Your task to perform on an android device: toggle airplane mode Image 0: 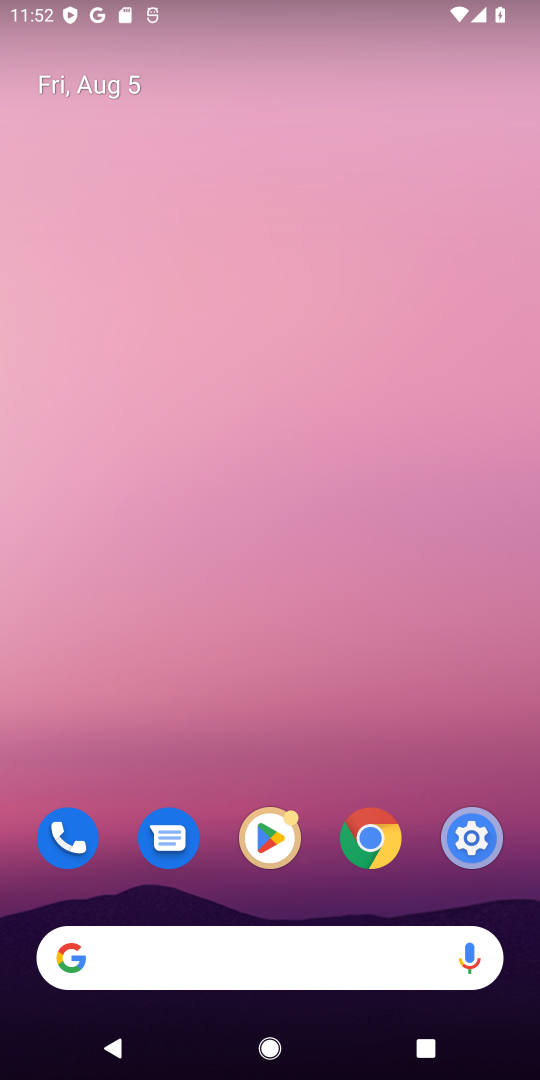
Step 0: drag from (436, 1) to (411, 746)
Your task to perform on an android device: toggle airplane mode Image 1: 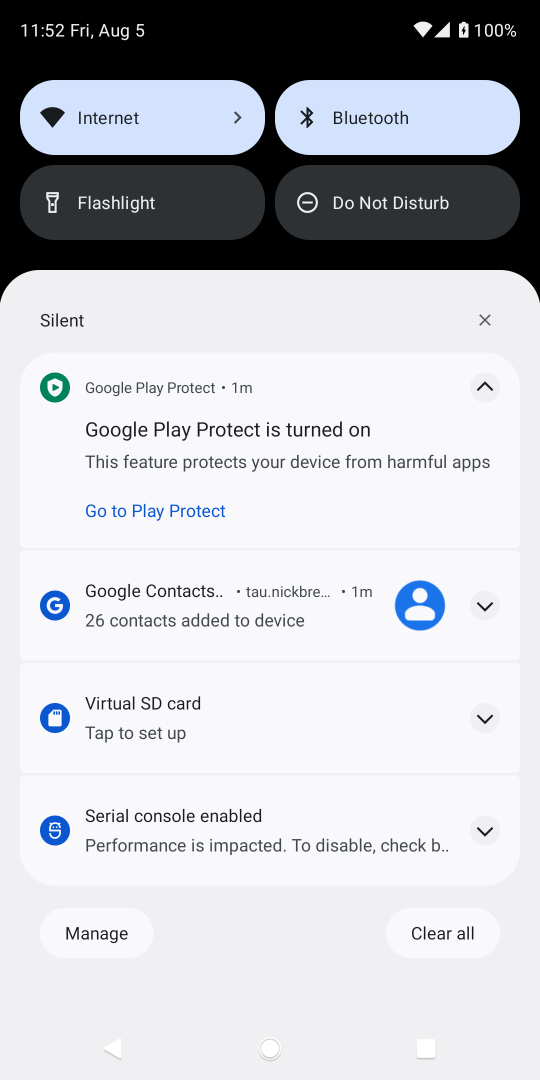
Step 1: drag from (270, 197) to (270, 641)
Your task to perform on an android device: toggle airplane mode Image 2: 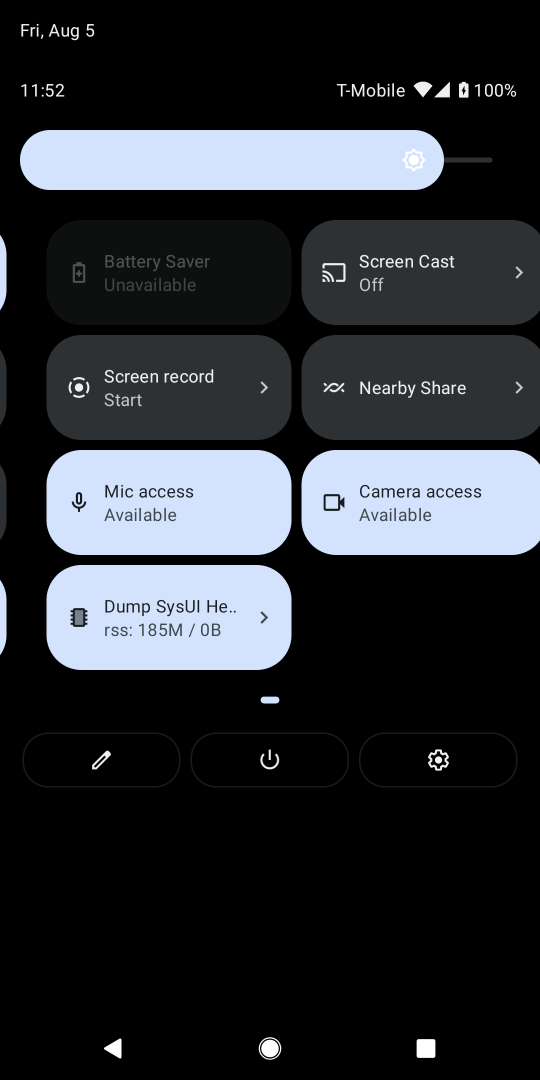
Step 2: click (393, 501)
Your task to perform on an android device: toggle airplane mode Image 3: 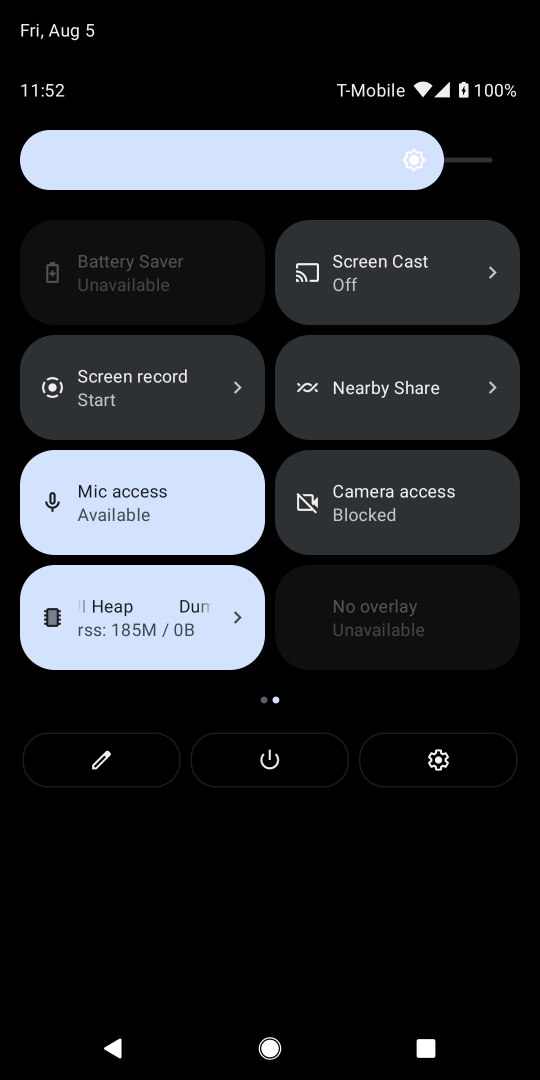
Step 3: click (260, 699)
Your task to perform on an android device: toggle airplane mode Image 4: 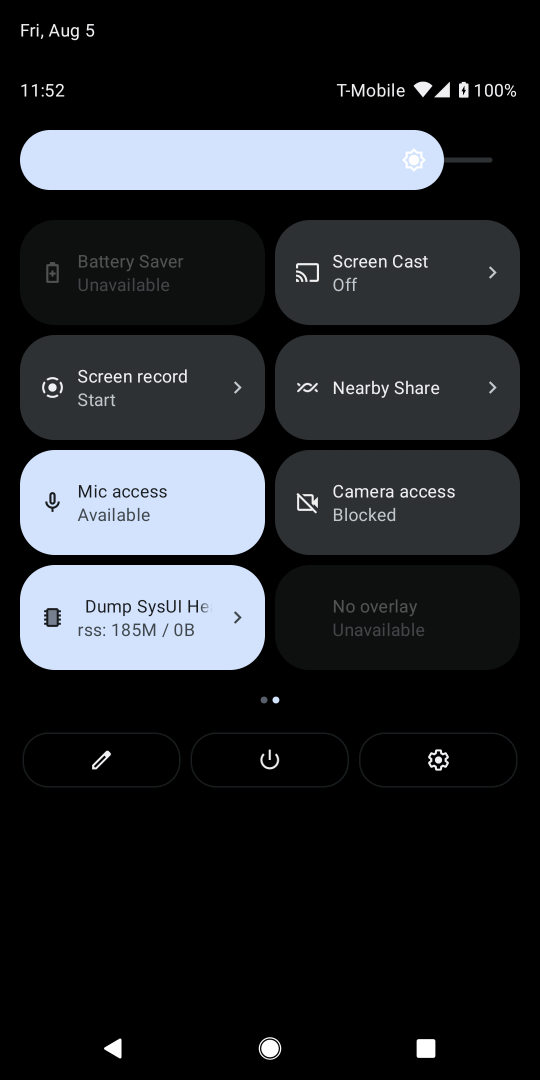
Step 4: drag from (396, 615) to (536, 644)
Your task to perform on an android device: toggle airplane mode Image 5: 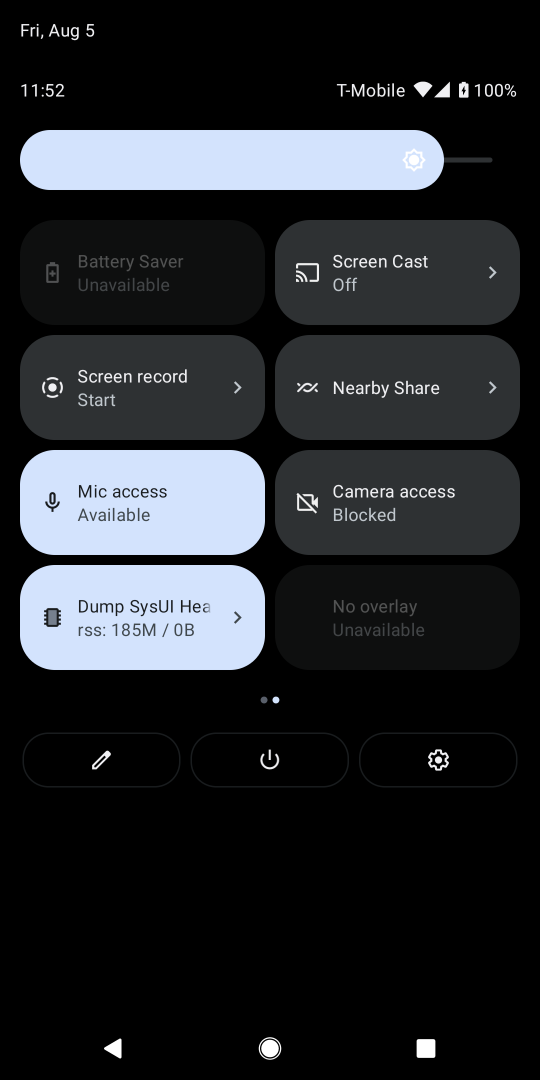
Step 5: drag from (78, 294) to (491, 414)
Your task to perform on an android device: toggle airplane mode Image 6: 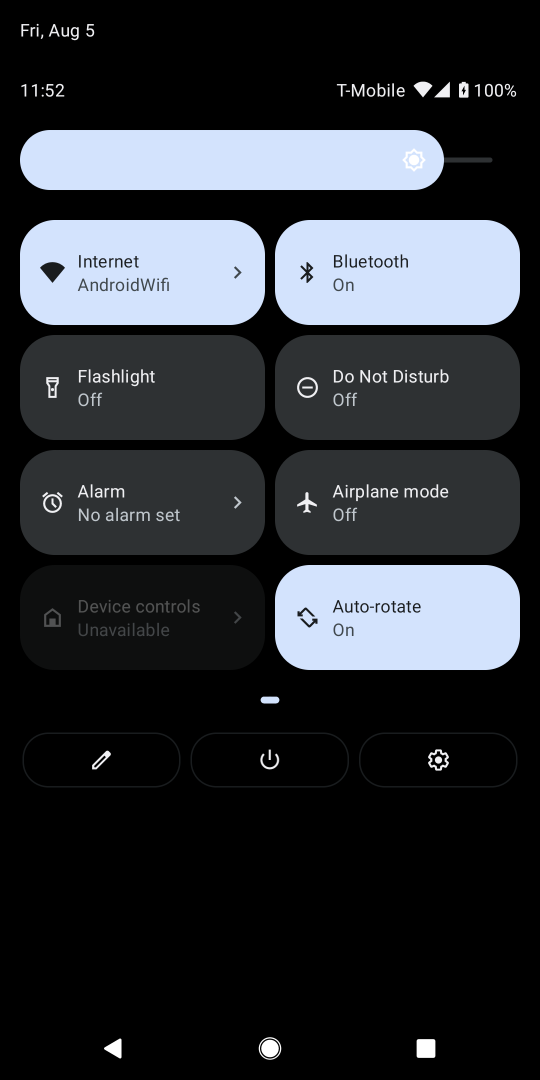
Step 6: click (226, 516)
Your task to perform on an android device: toggle airplane mode Image 7: 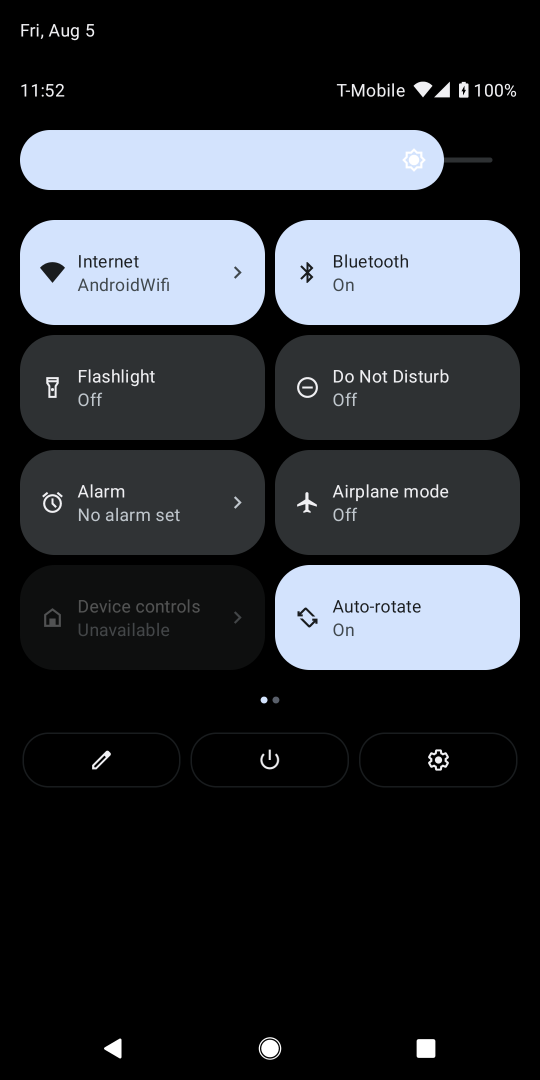
Step 7: click (438, 515)
Your task to perform on an android device: toggle airplane mode Image 8: 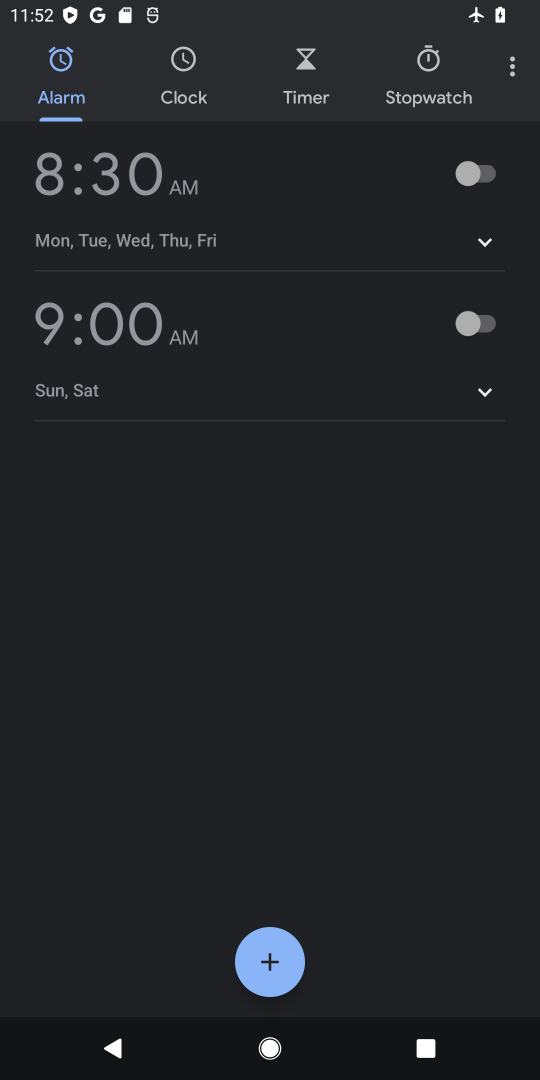
Step 8: task complete